Your task to perform on an android device: Show me productivity apps on the Play Store Image 0: 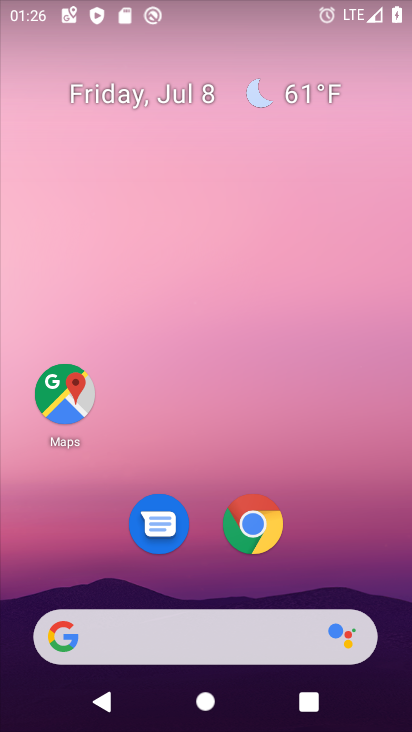
Step 0: drag from (331, 526) to (314, 92)
Your task to perform on an android device: Show me productivity apps on the Play Store Image 1: 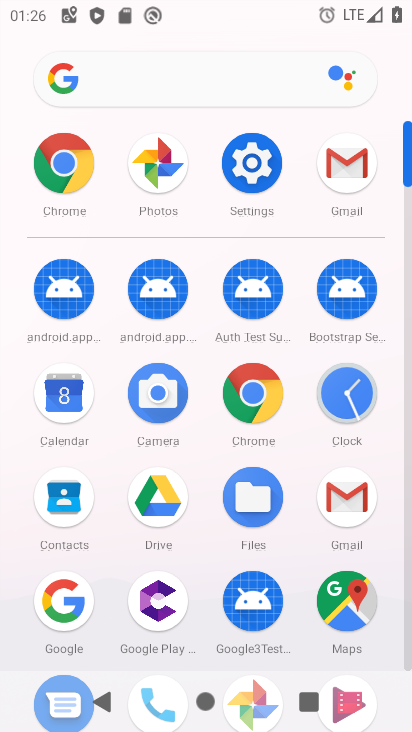
Step 1: drag from (201, 449) to (230, 214)
Your task to perform on an android device: Show me productivity apps on the Play Store Image 2: 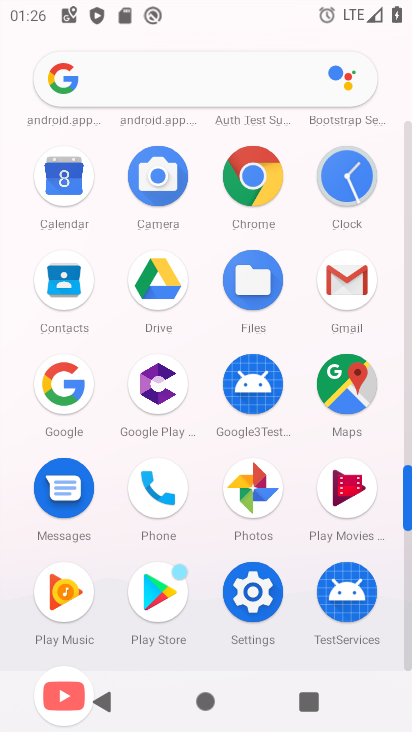
Step 2: click (172, 600)
Your task to perform on an android device: Show me productivity apps on the Play Store Image 3: 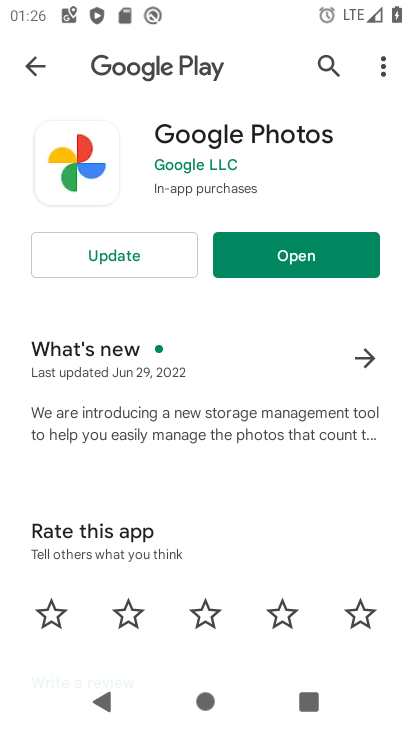
Step 3: click (31, 65)
Your task to perform on an android device: Show me productivity apps on the Play Store Image 4: 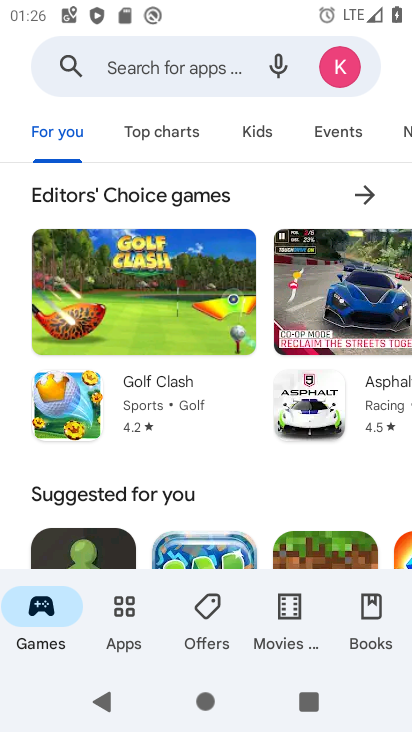
Step 4: click (131, 605)
Your task to perform on an android device: Show me productivity apps on the Play Store Image 5: 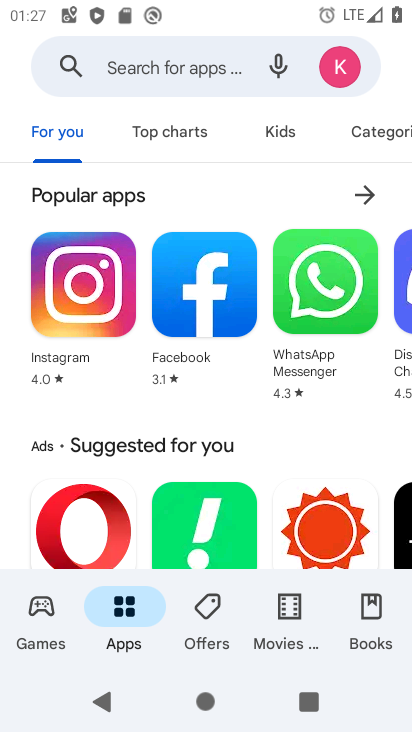
Step 5: click (377, 134)
Your task to perform on an android device: Show me productivity apps on the Play Store Image 6: 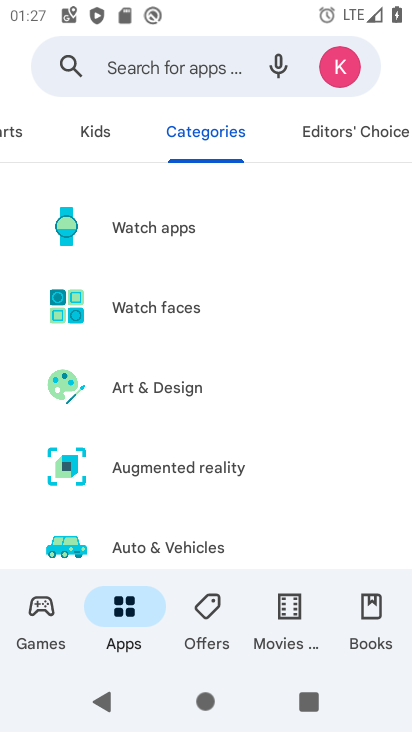
Step 6: drag from (273, 455) to (339, 139)
Your task to perform on an android device: Show me productivity apps on the Play Store Image 7: 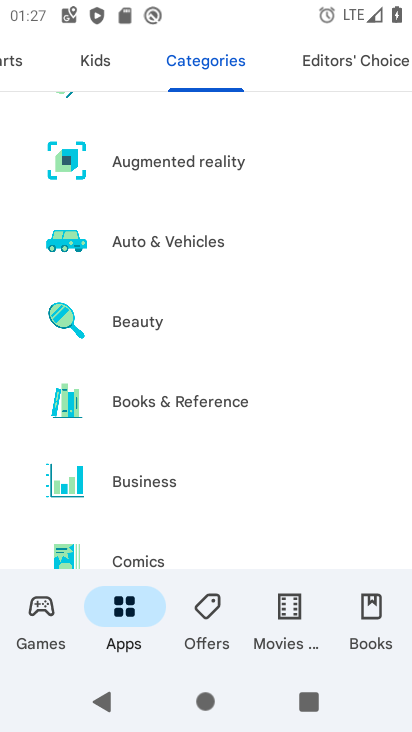
Step 7: drag from (240, 477) to (227, 136)
Your task to perform on an android device: Show me productivity apps on the Play Store Image 8: 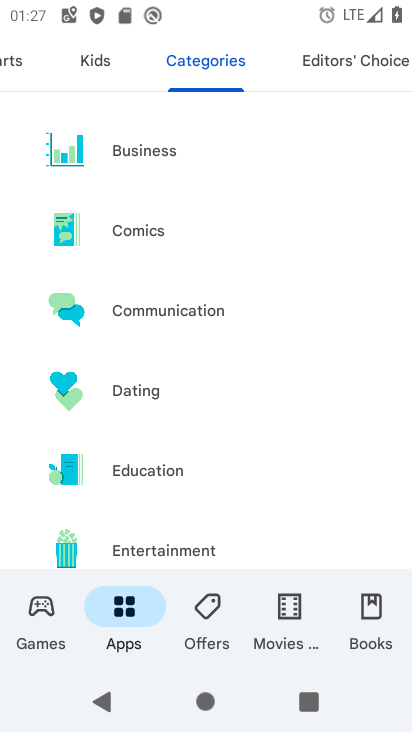
Step 8: drag from (166, 473) to (168, 120)
Your task to perform on an android device: Show me productivity apps on the Play Store Image 9: 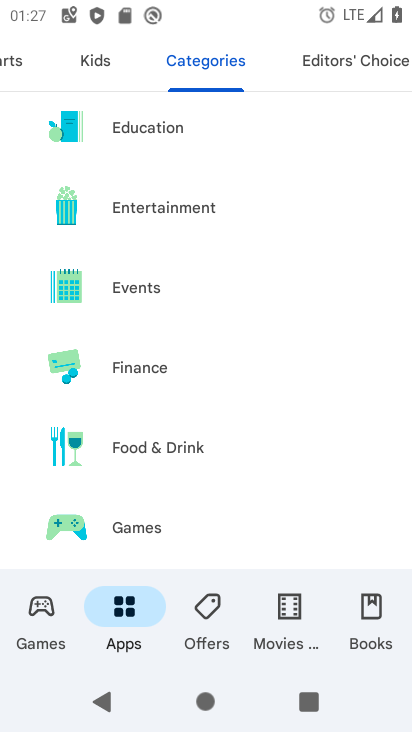
Step 9: drag from (158, 467) to (192, 114)
Your task to perform on an android device: Show me productivity apps on the Play Store Image 10: 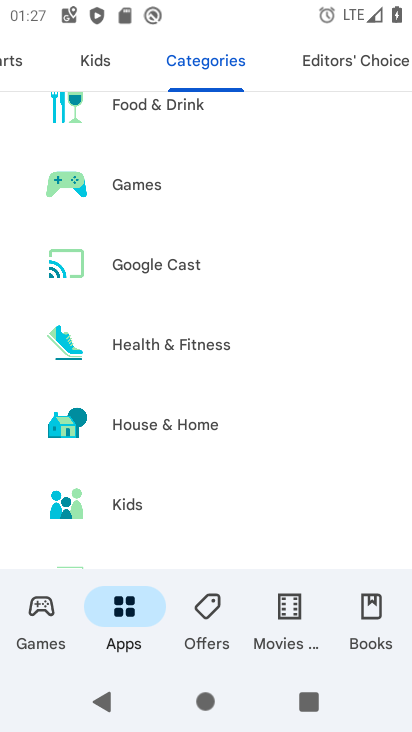
Step 10: drag from (168, 460) to (197, 114)
Your task to perform on an android device: Show me productivity apps on the Play Store Image 11: 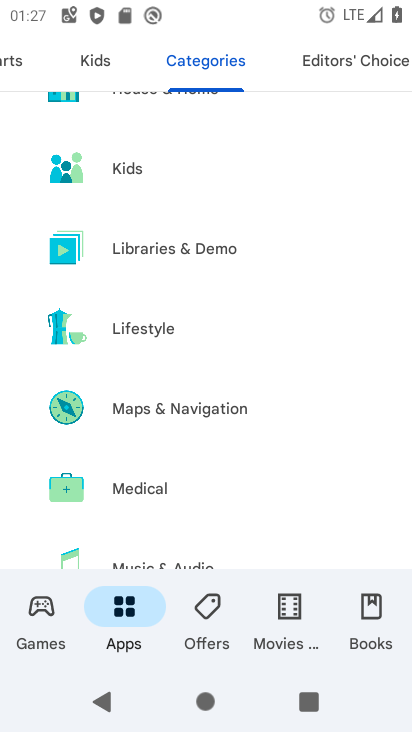
Step 11: drag from (191, 507) to (209, 139)
Your task to perform on an android device: Show me productivity apps on the Play Store Image 12: 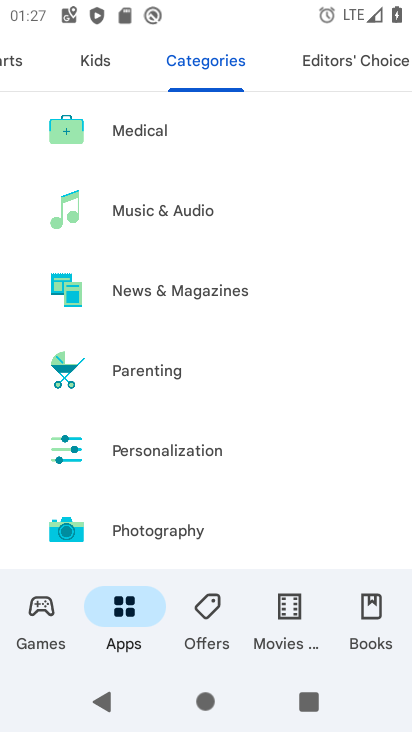
Step 12: drag from (196, 483) to (201, 208)
Your task to perform on an android device: Show me productivity apps on the Play Store Image 13: 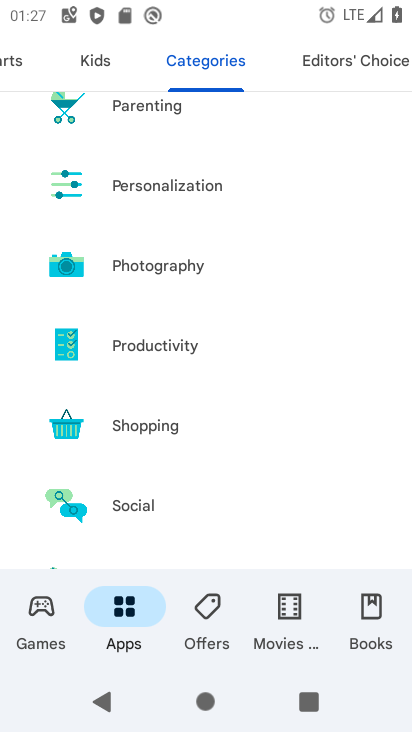
Step 13: click (152, 340)
Your task to perform on an android device: Show me productivity apps on the Play Store Image 14: 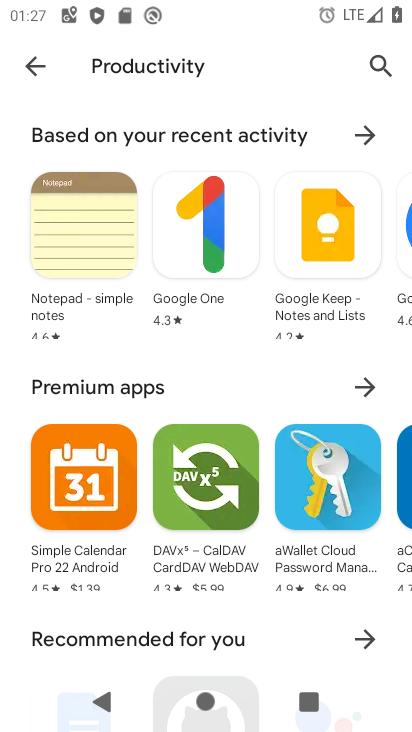
Step 14: task complete